Your task to perform on an android device: Open accessibility settings Image 0: 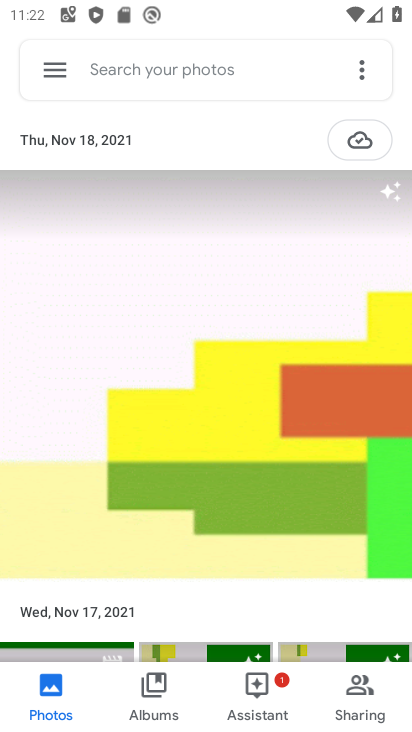
Step 0: press home button
Your task to perform on an android device: Open accessibility settings Image 1: 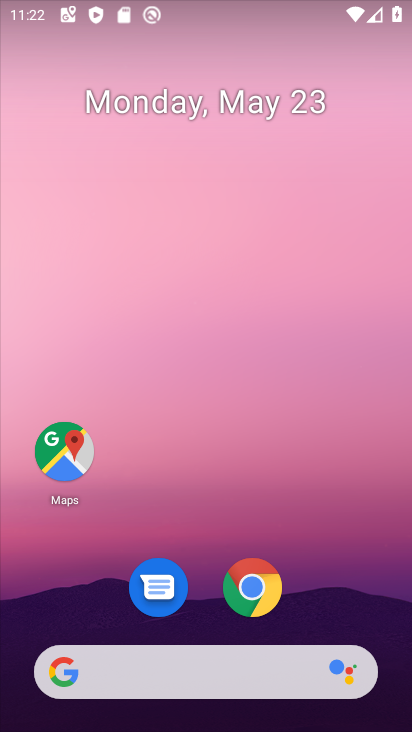
Step 1: drag from (400, 604) to (315, 113)
Your task to perform on an android device: Open accessibility settings Image 2: 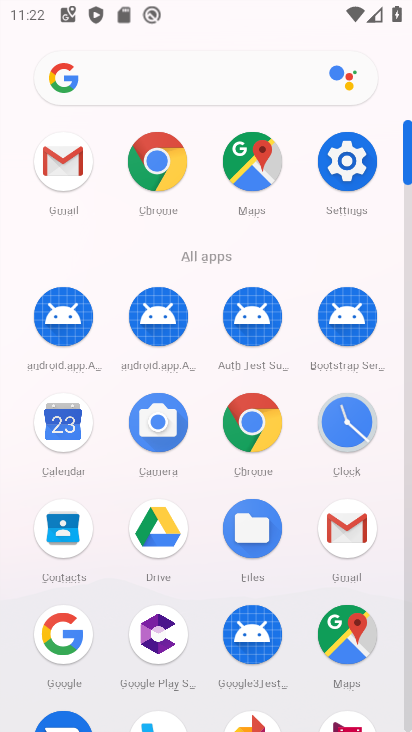
Step 2: click (355, 169)
Your task to perform on an android device: Open accessibility settings Image 3: 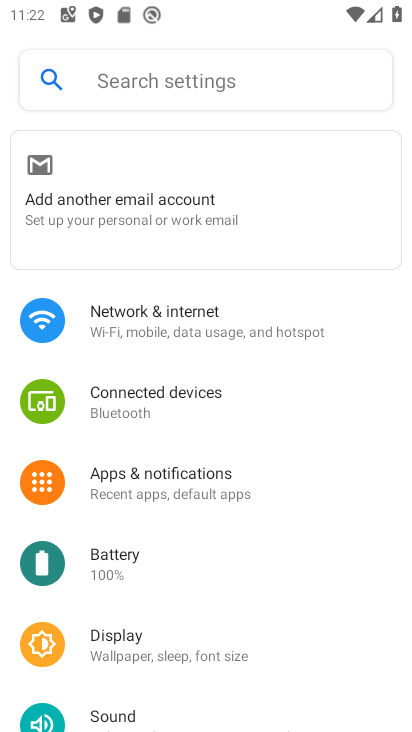
Step 3: drag from (255, 668) to (142, 172)
Your task to perform on an android device: Open accessibility settings Image 4: 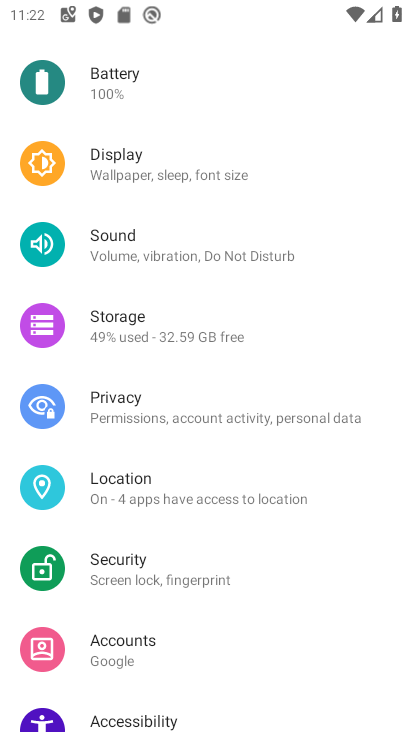
Step 4: drag from (187, 688) to (186, 409)
Your task to perform on an android device: Open accessibility settings Image 5: 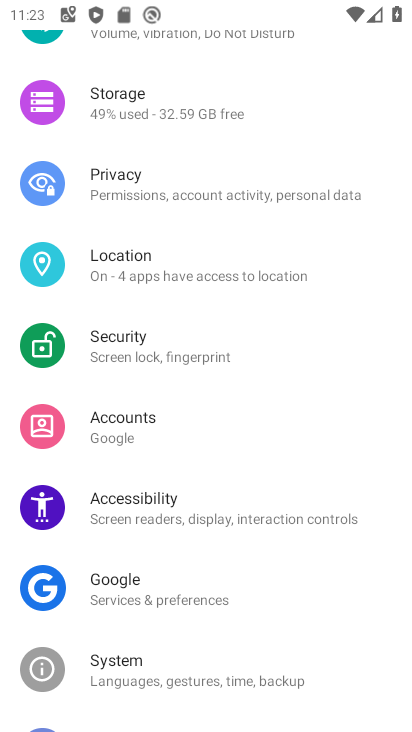
Step 5: click (205, 505)
Your task to perform on an android device: Open accessibility settings Image 6: 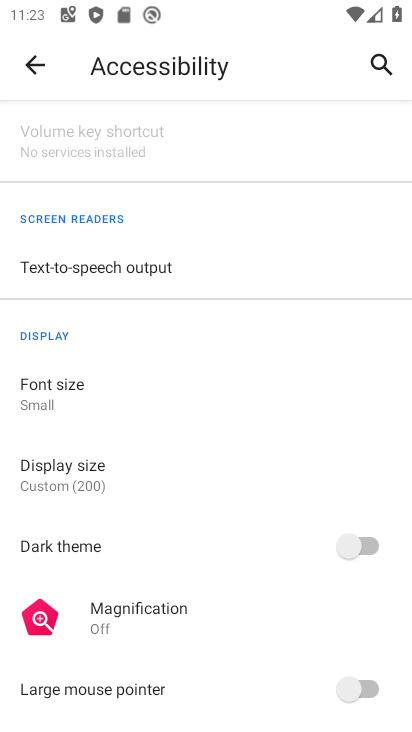
Step 6: task complete